Your task to perform on an android device: Search for Italian restaurants on Maps Image 0: 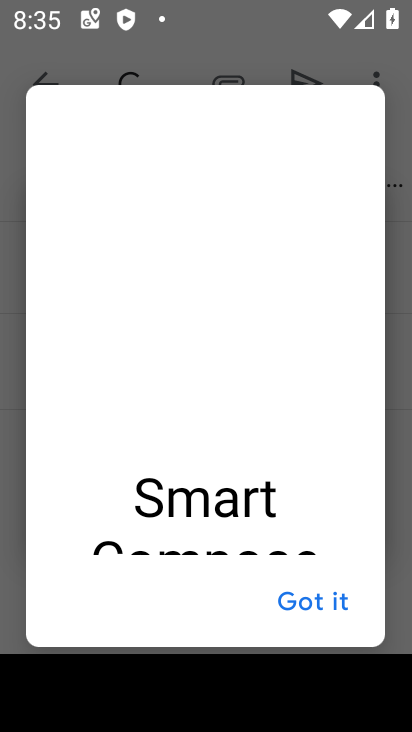
Step 0: press home button
Your task to perform on an android device: Search for Italian restaurants on Maps Image 1: 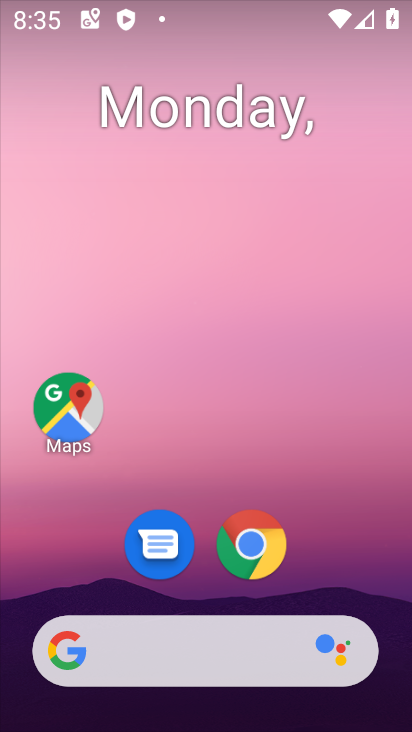
Step 1: click (62, 403)
Your task to perform on an android device: Search for Italian restaurants on Maps Image 2: 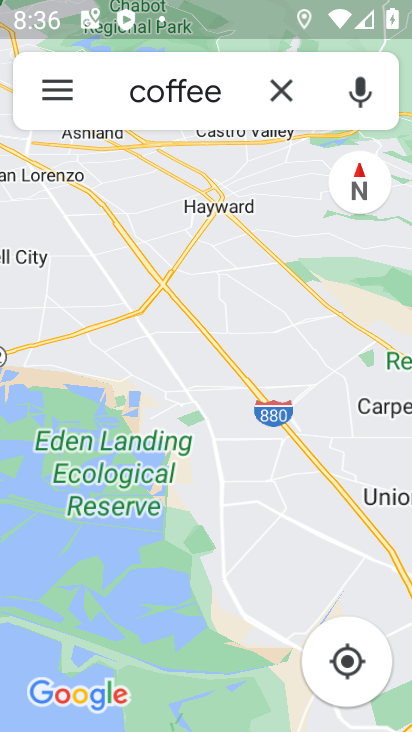
Step 2: click (282, 94)
Your task to perform on an android device: Search for Italian restaurants on Maps Image 3: 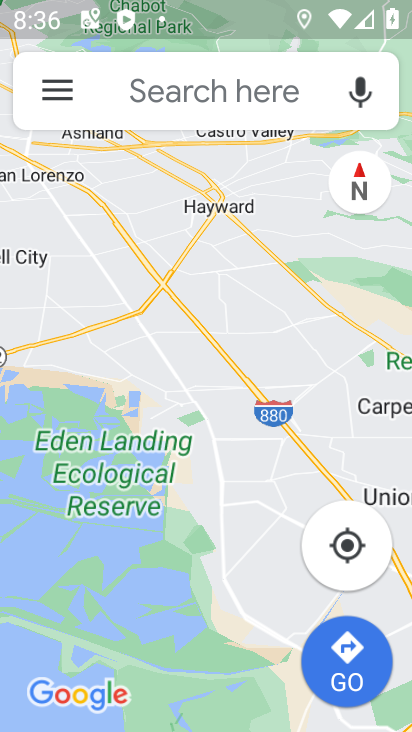
Step 3: click (158, 101)
Your task to perform on an android device: Search for Italian restaurants on Maps Image 4: 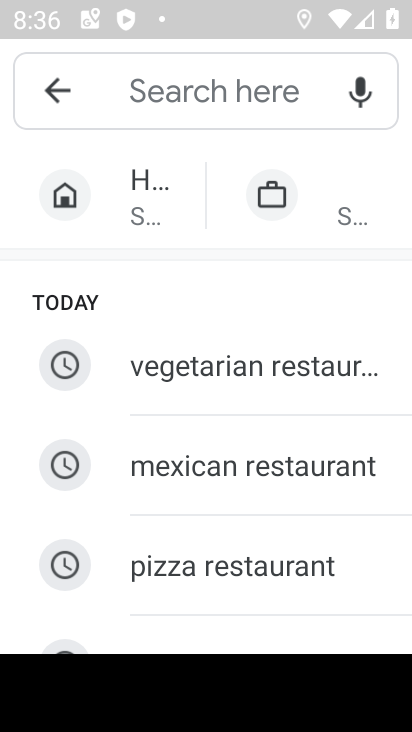
Step 4: type "italian restaurants"
Your task to perform on an android device: Search for Italian restaurants on Maps Image 5: 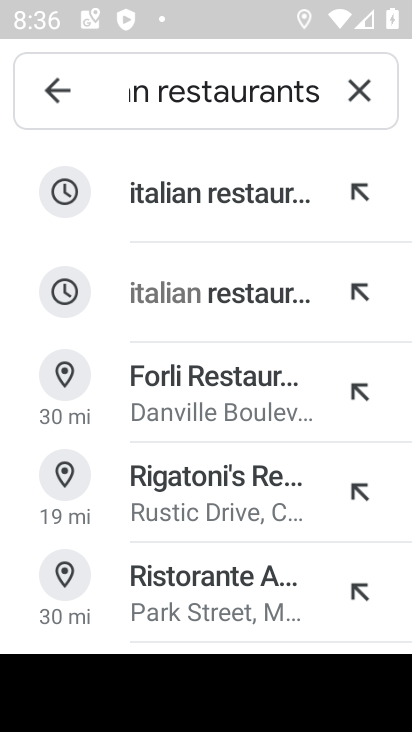
Step 5: click (242, 188)
Your task to perform on an android device: Search for Italian restaurants on Maps Image 6: 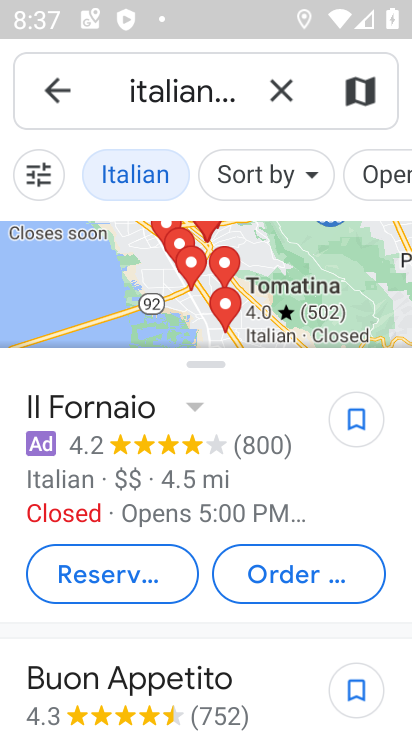
Step 6: task complete